Your task to perform on an android device: check data usage Image 0: 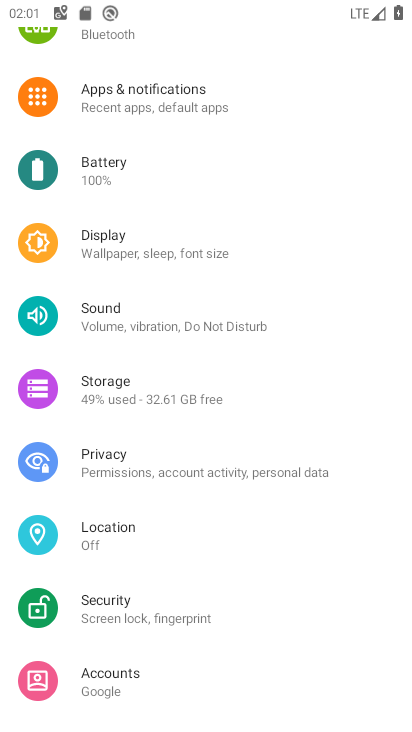
Step 0: drag from (149, 208) to (151, 470)
Your task to perform on an android device: check data usage Image 1: 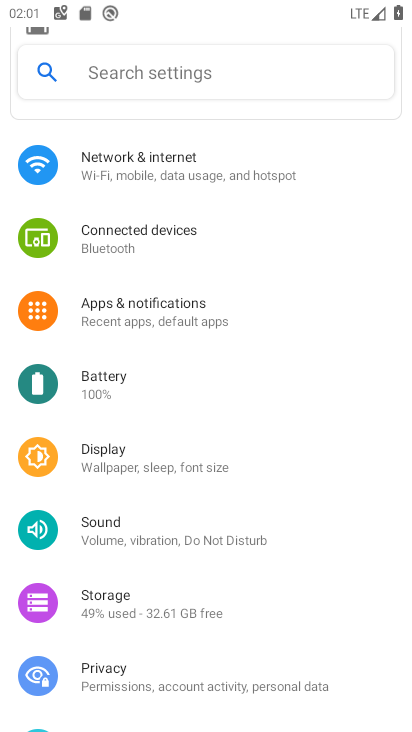
Step 1: click (151, 175)
Your task to perform on an android device: check data usage Image 2: 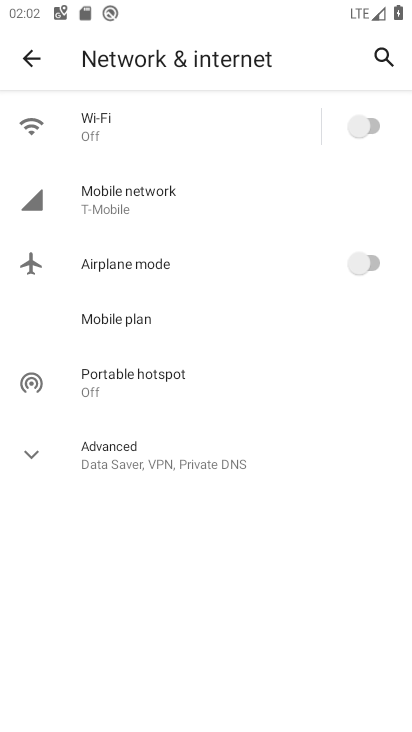
Step 2: click (161, 191)
Your task to perform on an android device: check data usage Image 3: 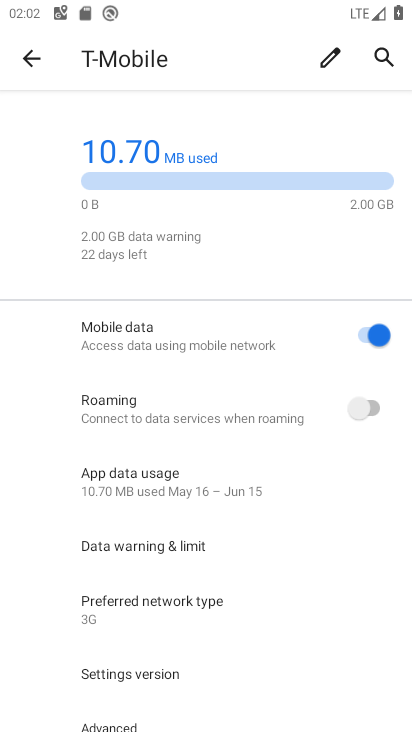
Step 3: task complete